Your task to perform on an android device: Open display settings Image 0: 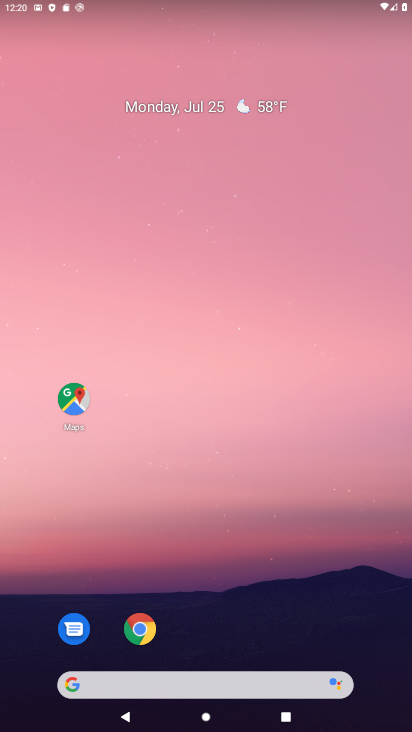
Step 0: drag from (221, 675) to (230, 26)
Your task to perform on an android device: Open display settings Image 1: 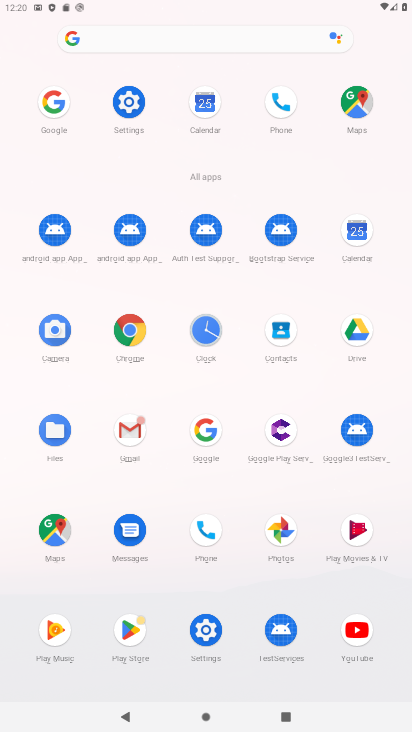
Step 1: click (139, 105)
Your task to perform on an android device: Open display settings Image 2: 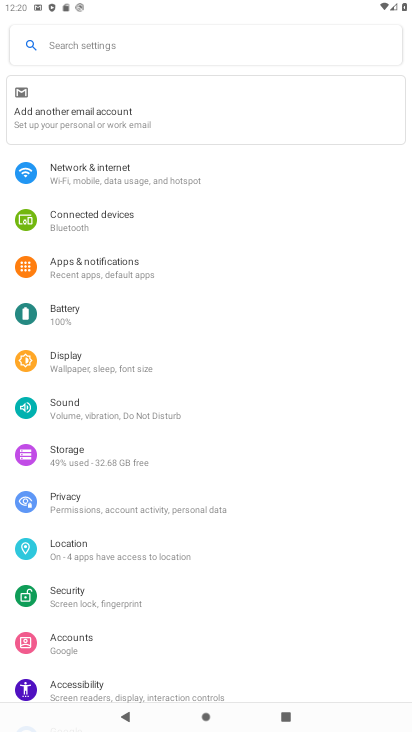
Step 2: click (74, 363)
Your task to perform on an android device: Open display settings Image 3: 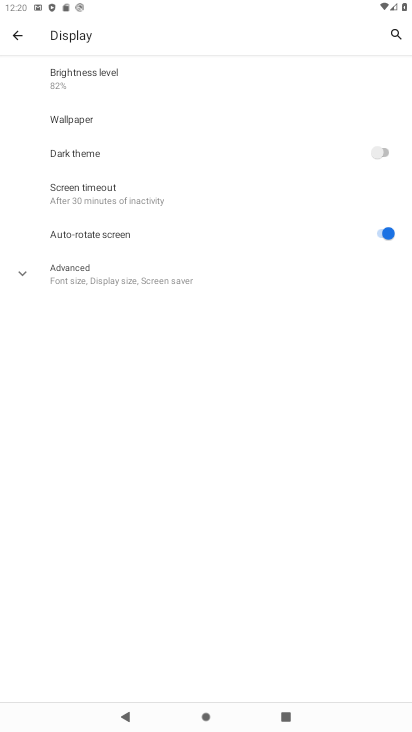
Step 3: click (60, 282)
Your task to perform on an android device: Open display settings Image 4: 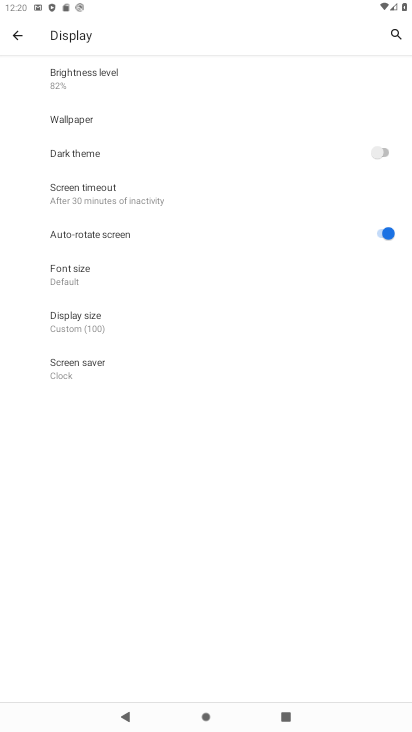
Step 4: task complete